Your task to perform on an android device: Open Maps and search for coffee Image 0: 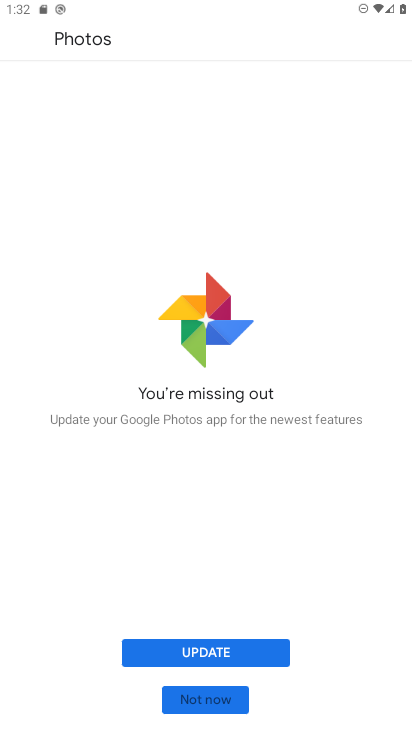
Step 0: press home button
Your task to perform on an android device: Open Maps and search for coffee Image 1: 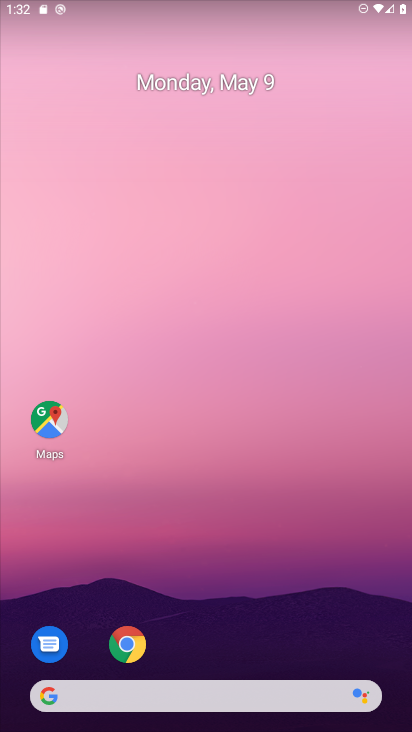
Step 1: click (57, 438)
Your task to perform on an android device: Open Maps and search for coffee Image 2: 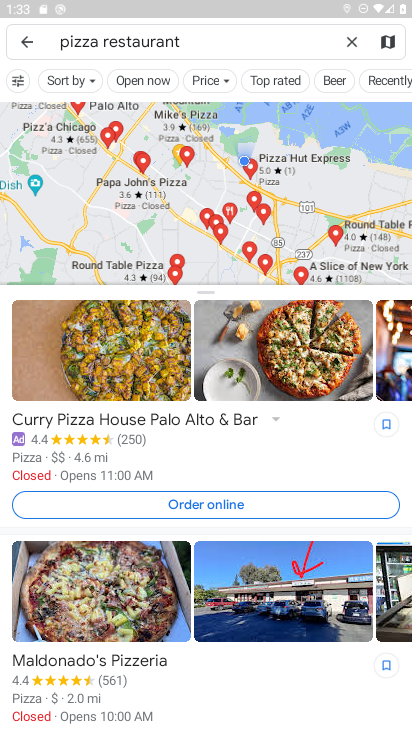
Step 2: click (352, 40)
Your task to perform on an android device: Open Maps and search for coffee Image 3: 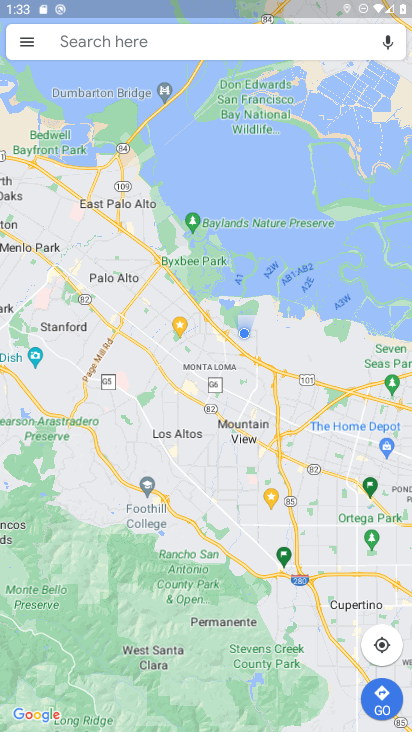
Step 3: click (213, 47)
Your task to perform on an android device: Open Maps and search for coffee Image 4: 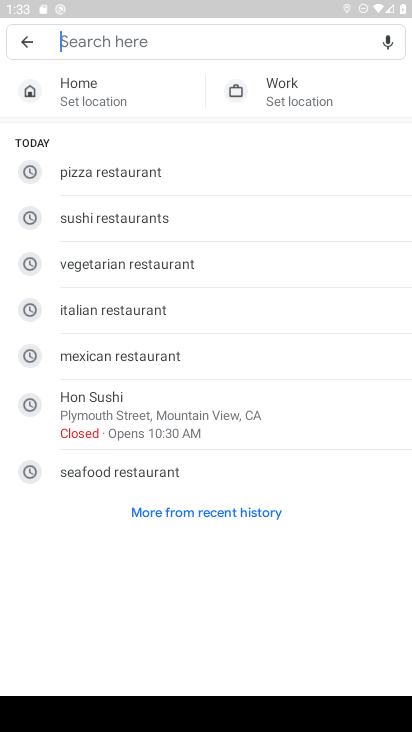
Step 4: type "coffee"
Your task to perform on an android device: Open Maps and search for coffee Image 5: 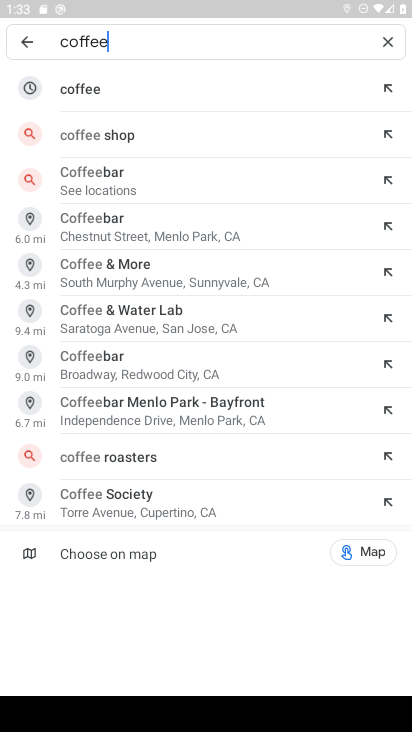
Step 5: click (150, 84)
Your task to perform on an android device: Open Maps and search for coffee Image 6: 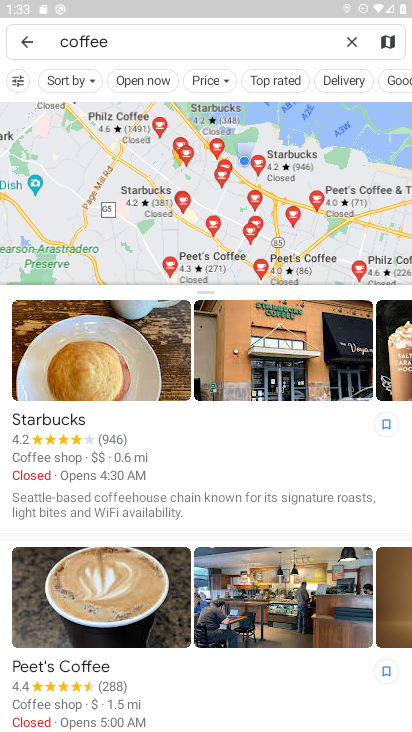
Step 6: task complete